Your task to perform on an android device: Show me popular videos on Youtube Image 0: 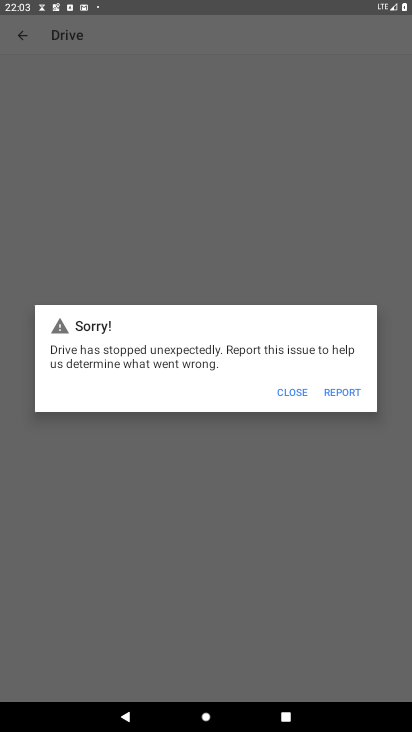
Step 0: press home button
Your task to perform on an android device: Show me popular videos on Youtube Image 1: 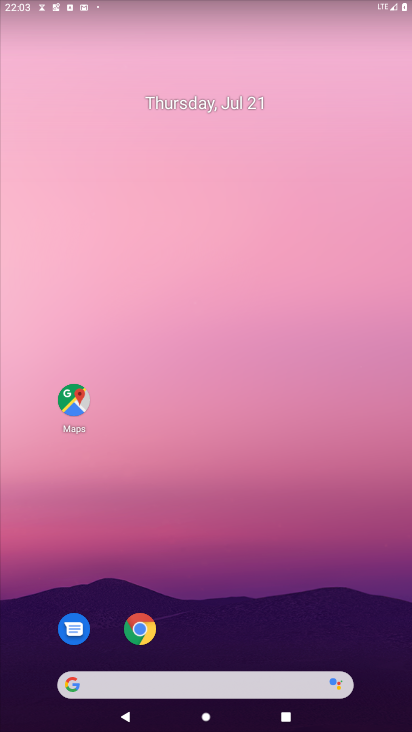
Step 1: drag from (247, 547) to (260, 126)
Your task to perform on an android device: Show me popular videos on Youtube Image 2: 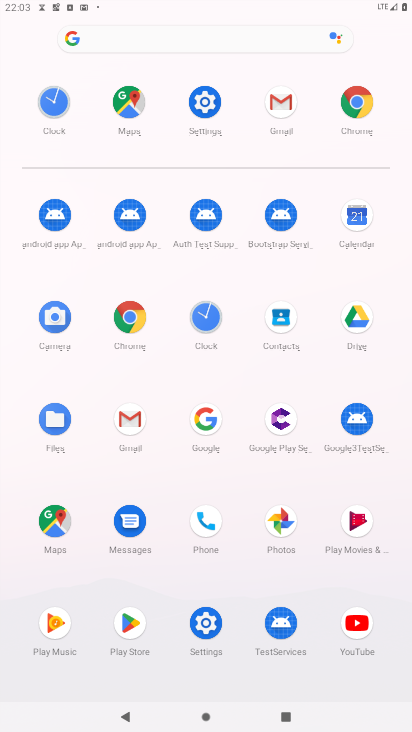
Step 2: click (350, 635)
Your task to perform on an android device: Show me popular videos on Youtube Image 3: 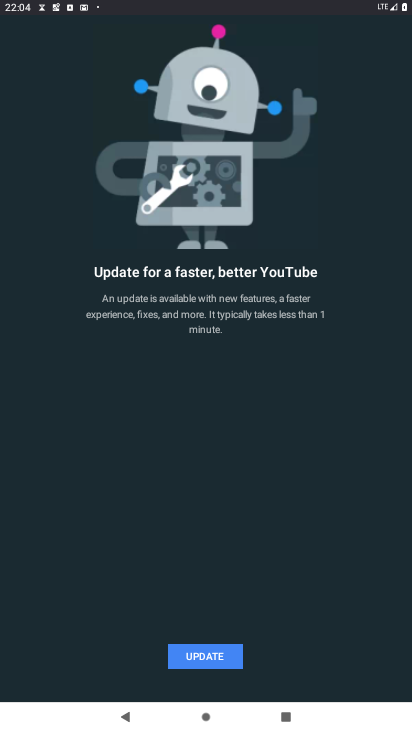
Step 3: click (231, 664)
Your task to perform on an android device: Show me popular videos on Youtube Image 4: 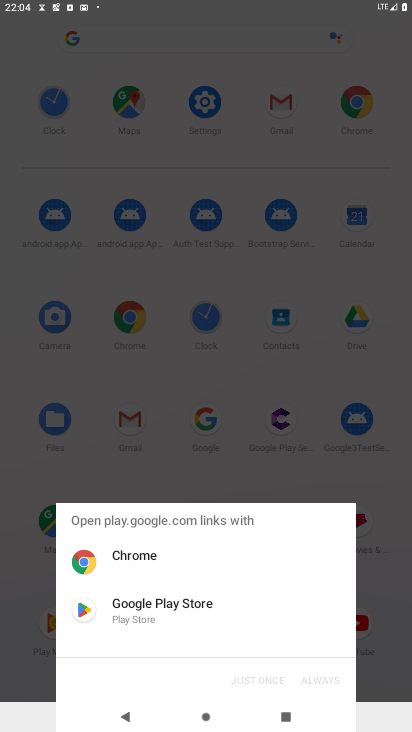
Step 4: click (149, 597)
Your task to perform on an android device: Show me popular videos on Youtube Image 5: 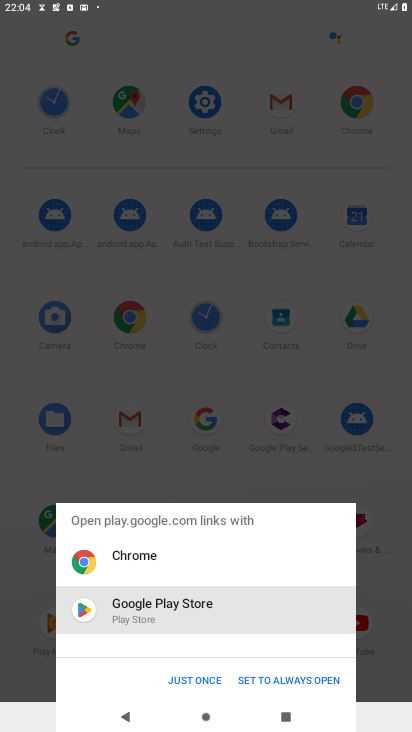
Step 5: click (202, 681)
Your task to perform on an android device: Show me popular videos on Youtube Image 6: 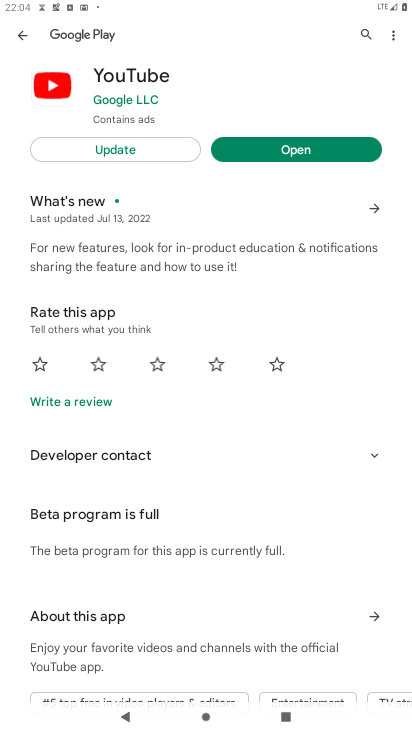
Step 6: click (134, 144)
Your task to perform on an android device: Show me popular videos on Youtube Image 7: 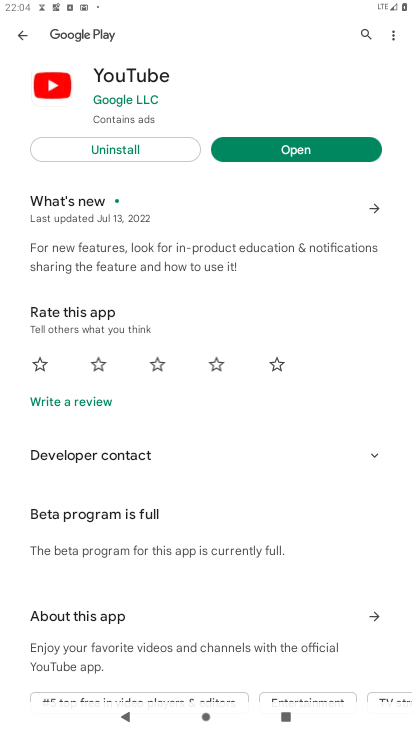
Step 7: click (325, 142)
Your task to perform on an android device: Show me popular videos on Youtube Image 8: 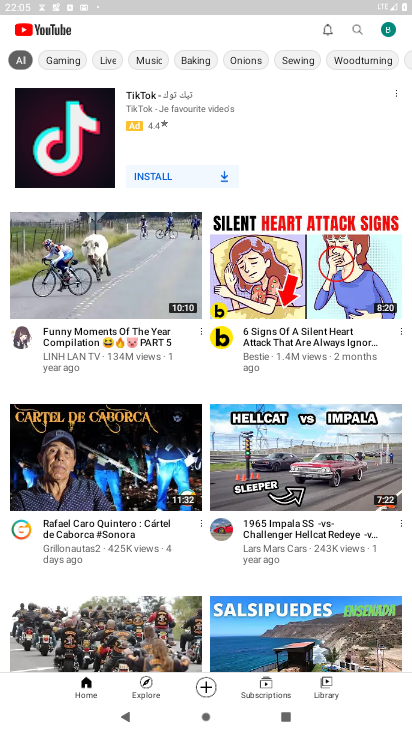
Step 8: drag from (31, 65) to (87, 436)
Your task to perform on an android device: Show me popular videos on Youtube Image 9: 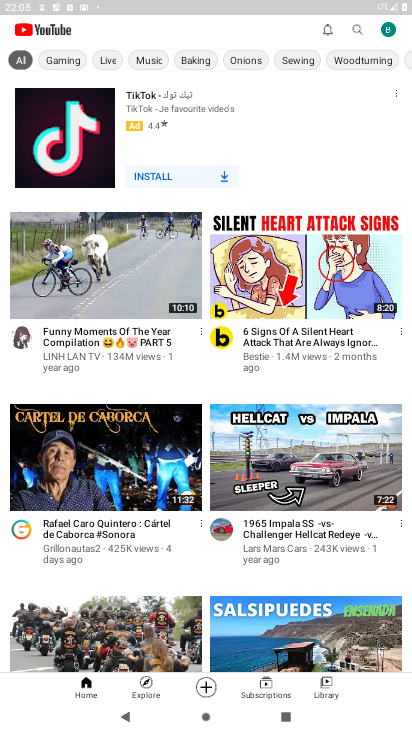
Step 9: click (25, 34)
Your task to perform on an android device: Show me popular videos on Youtube Image 10: 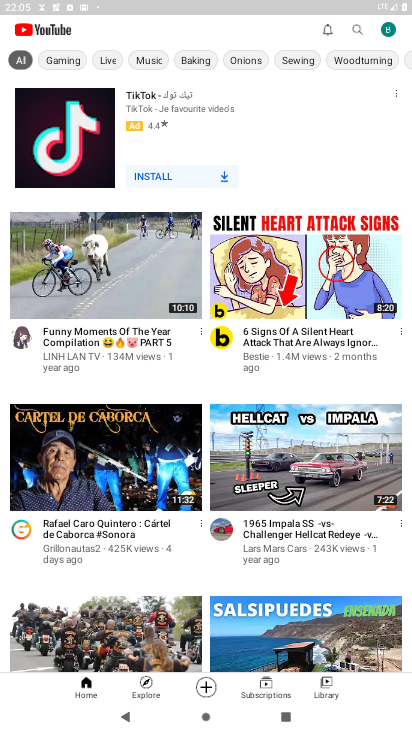
Step 10: click (25, 55)
Your task to perform on an android device: Show me popular videos on Youtube Image 11: 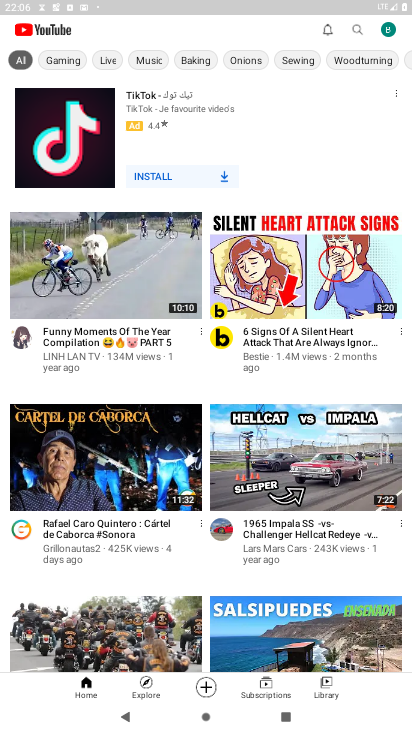
Step 11: task complete